Your task to perform on an android device: open app "PlayWell" (install if not already installed) and go to login screen Image 0: 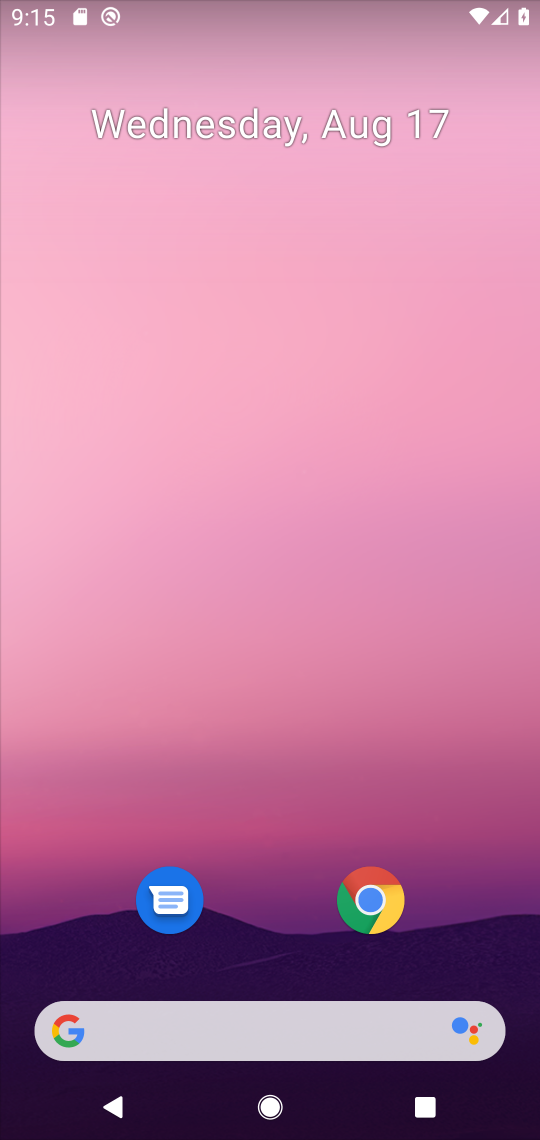
Step 0: drag from (281, 962) to (338, 397)
Your task to perform on an android device: open app "PlayWell" (install if not already installed) and go to login screen Image 1: 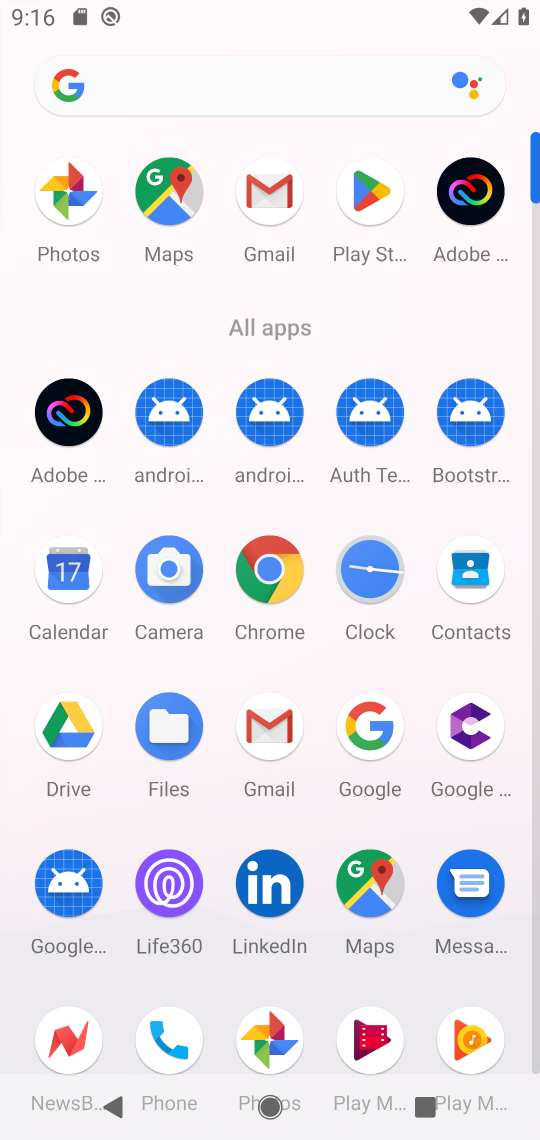
Step 1: click (374, 201)
Your task to perform on an android device: open app "PlayWell" (install if not already installed) and go to login screen Image 2: 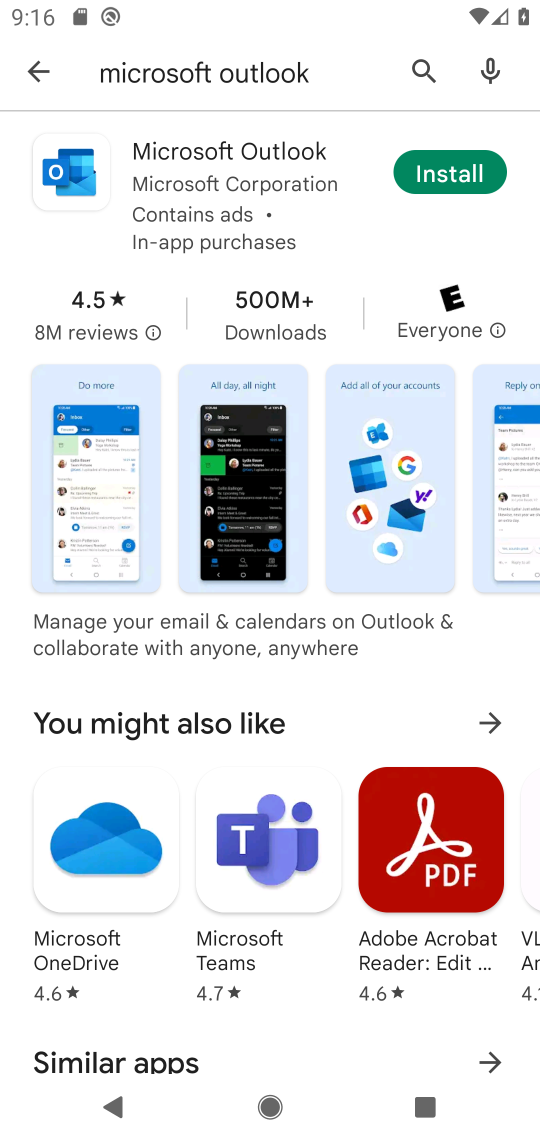
Step 2: click (29, 74)
Your task to perform on an android device: open app "PlayWell" (install if not already installed) and go to login screen Image 3: 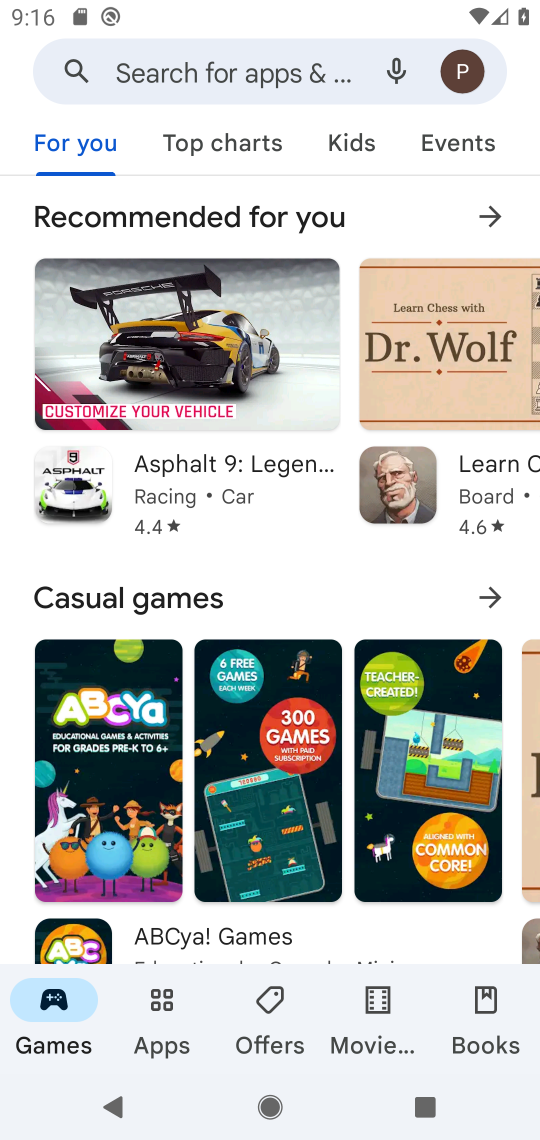
Step 3: click (121, 62)
Your task to perform on an android device: open app "PlayWell" (install if not already installed) and go to login screen Image 4: 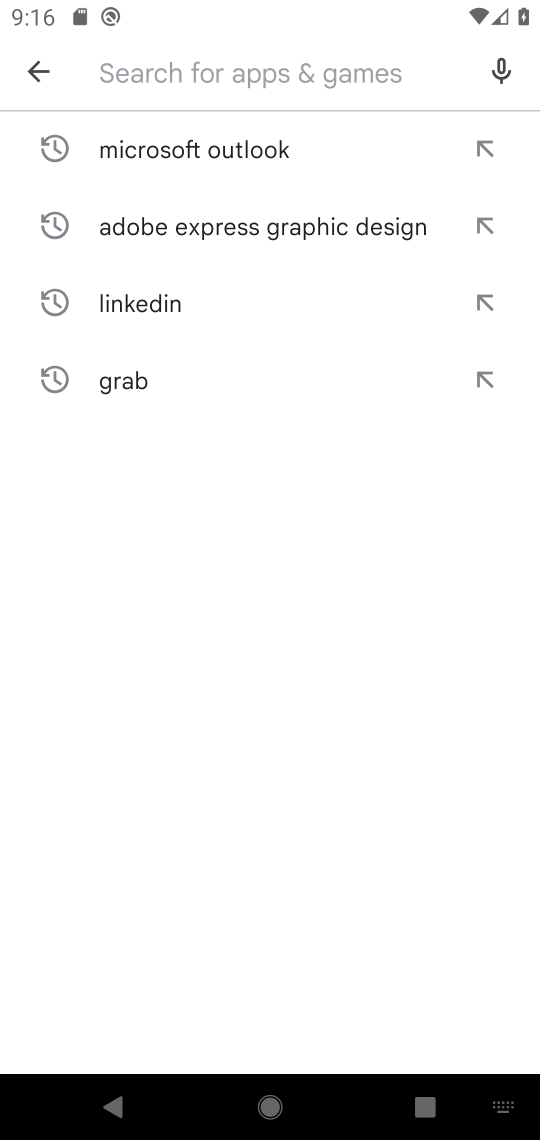
Step 4: type "PlayWell"
Your task to perform on an android device: open app "PlayWell" (install if not already installed) and go to login screen Image 5: 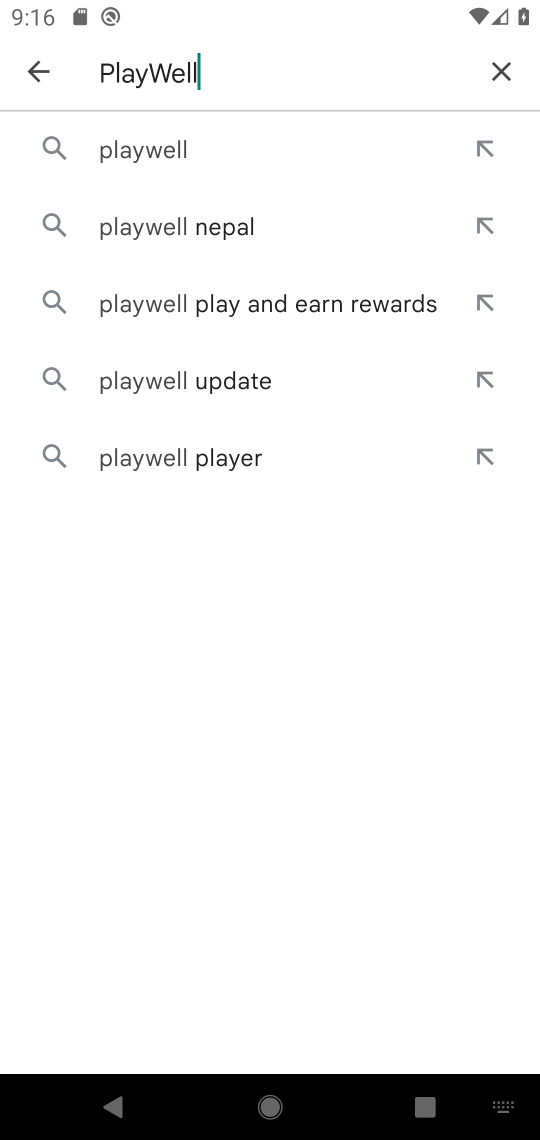
Step 5: click (214, 151)
Your task to perform on an android device: open app "PlayWell" (install if not already installed) and go to login screen Image 6: 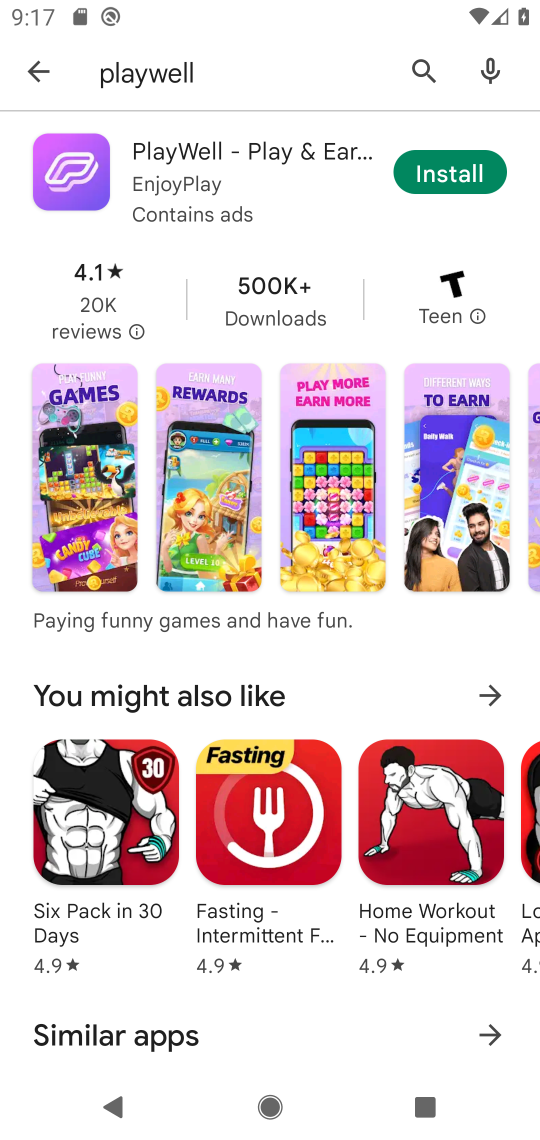
Step 6: click (460, 168)
Your task to perform on an android device: open app "PlayWell" (install if not already installed) and go to login screen Image 7: 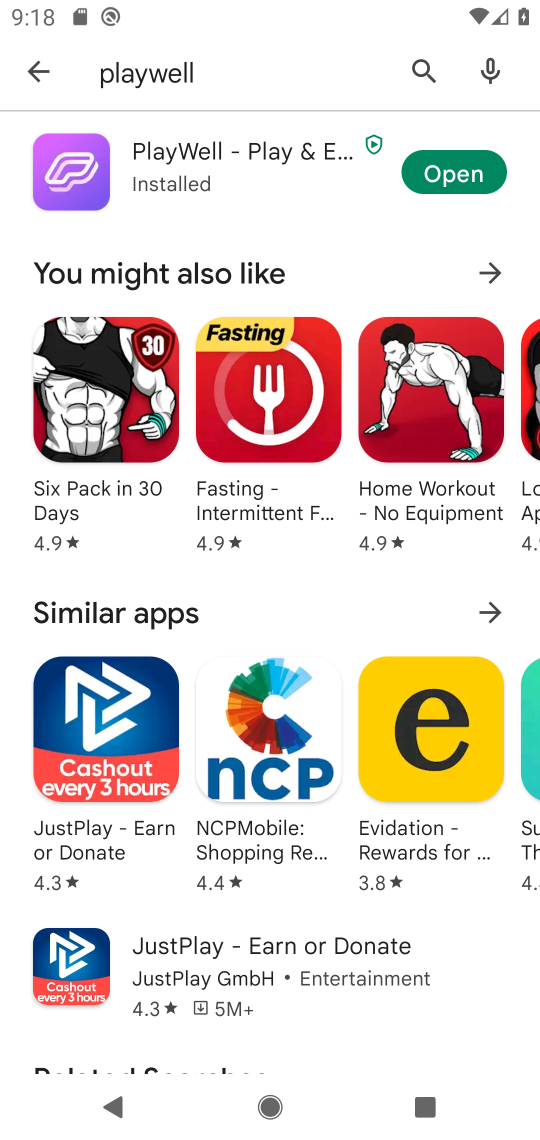
Step 7: click (466, 173)
Your task to perform on an android device: open app "PlayWell" (install if not already installed) and go to login screen Image 8: 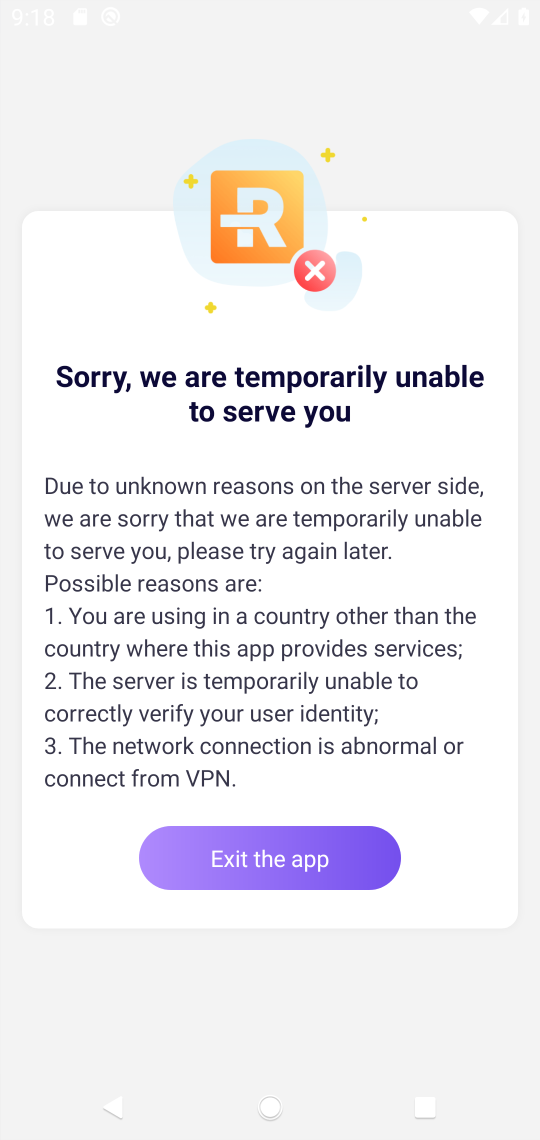
Step 8: task complete